Your task to perform on an android device: make emails show in primary in the gmail app Image 0: 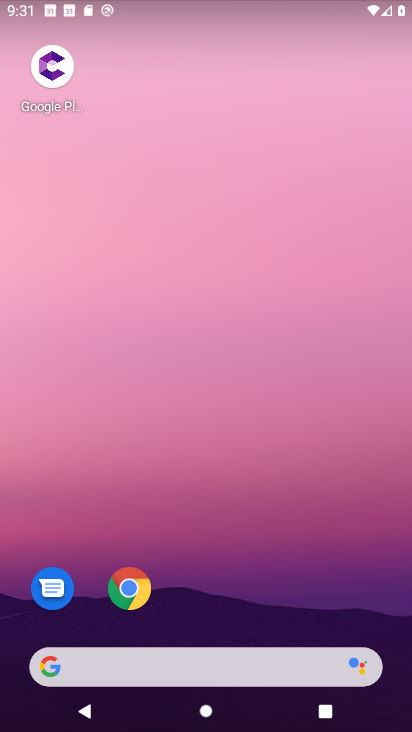
Step 0: drag from (274, 586) to (300, 150)
Your task to perform on an android device: make emails show in primary in the gmail app Image 1: 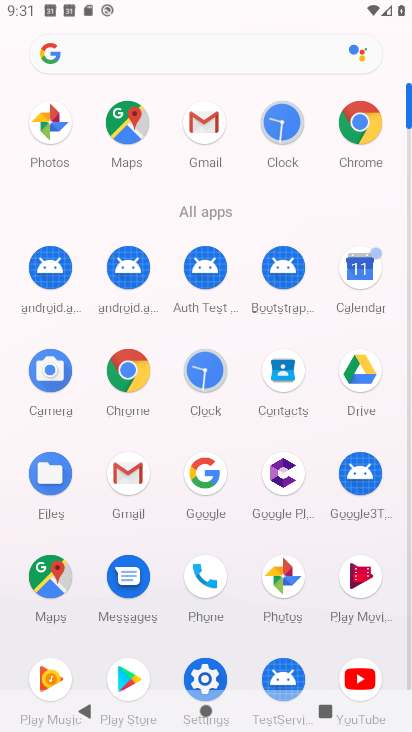
Step 1: click (197, 132)
Your task to perform on an android device: make emails show in primary in the gmail app Image 2: 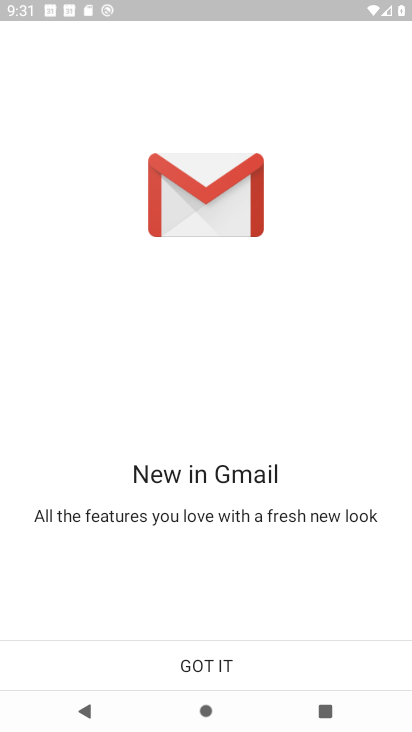
Step 2: click (231, 657)
Your task to perform on an android device: make emails show in primary in the gmail app Image 3: 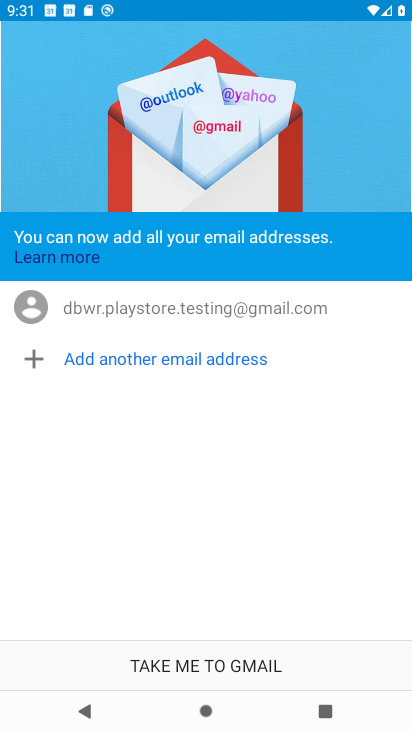
Step 3: click (231, 657)
Your task to perform on an android device: make emails show in primary in the gmail app Image 4: 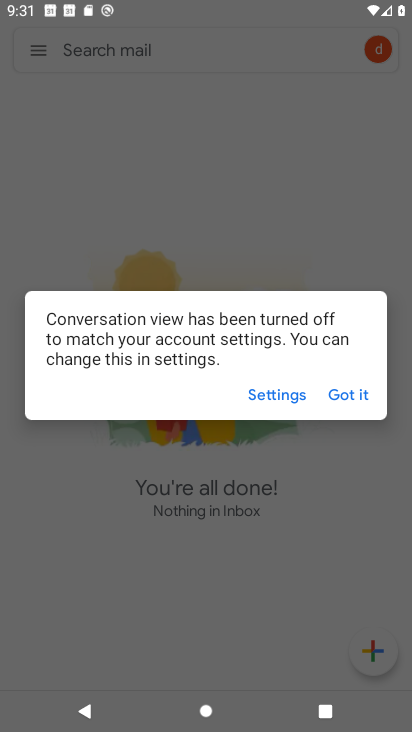
Step 4: press home button
Your task to perform on an android device: make emails show in primary in the gmail app Image 5: 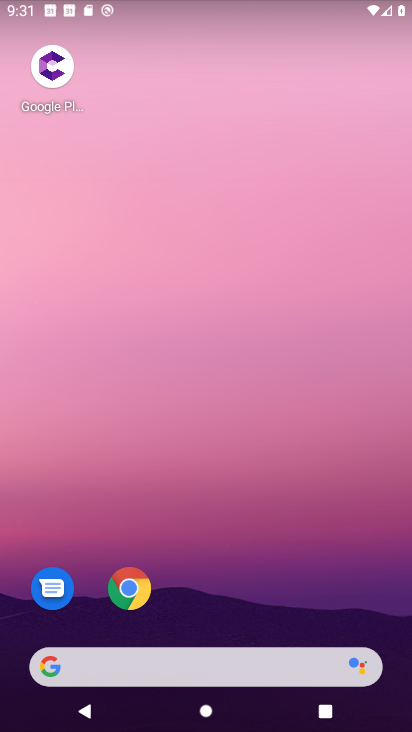
Step 5: drag from (301, 559) to (286, 84)
Your task to perform on an android device: make emails show in primary in the gmail app Image 6: 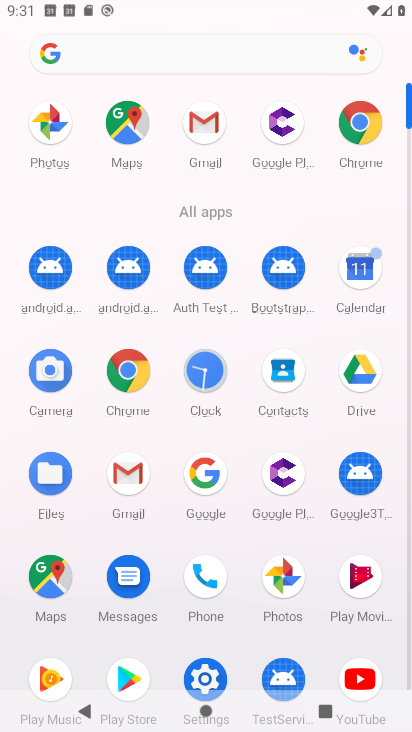
Step 6: click (194, 118)
Your task to perform on an android device: make emails show in primary in the gmail app Image 7: 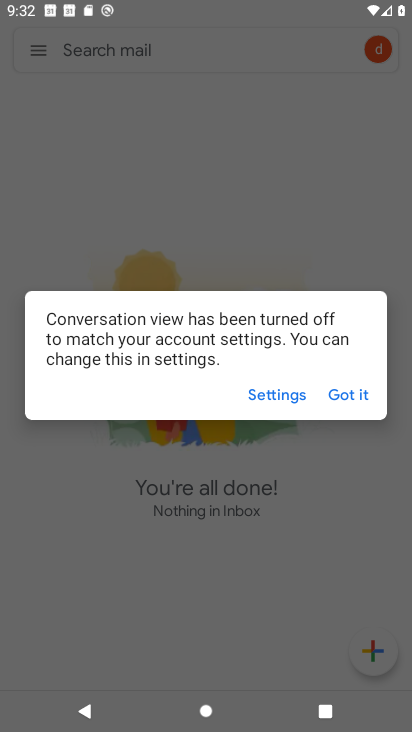
Step 7: click (335, 385)
Your task to perform on an android device: make emails show in primary in the gmail app Image 8: 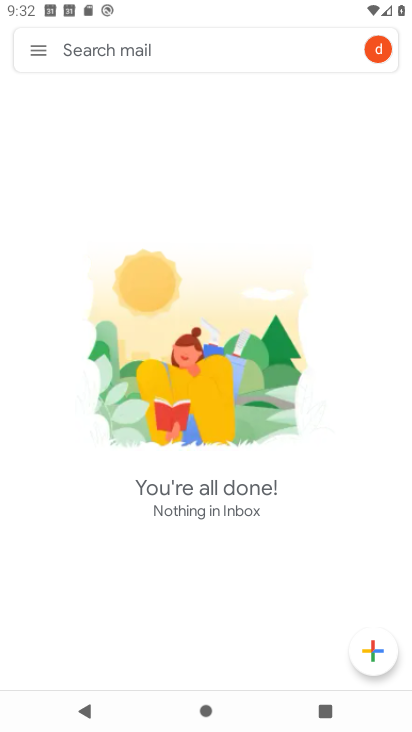
Step 8: task complete